Your task to perform on an android device: Open calendar and show me the fourth week of next month Image 0: 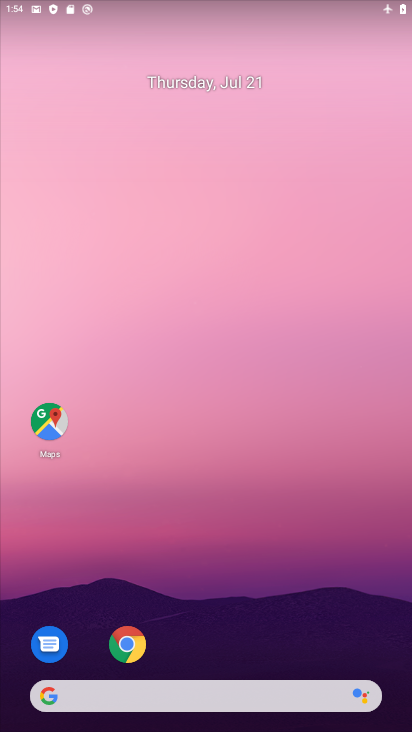
Step 0: drag from (269, 659) to (229, 195)
Your task to perform on an android device: Open calendar and show me the fourth week of next month Image 1: 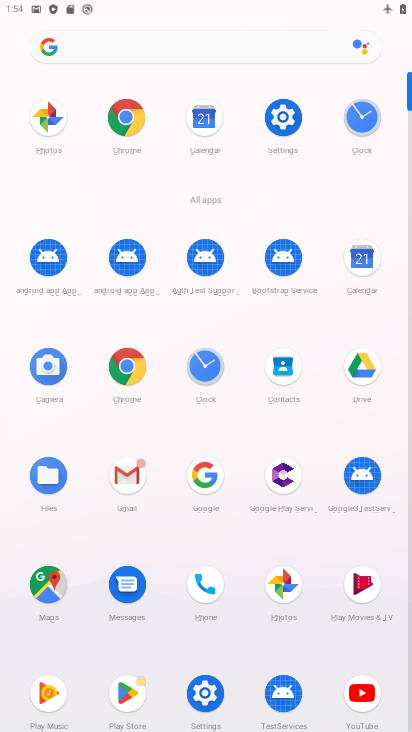
Step 1: click (365, 264)
Your task to perform on an android device: Open calendar and show me the fourth week of next month Image 2: 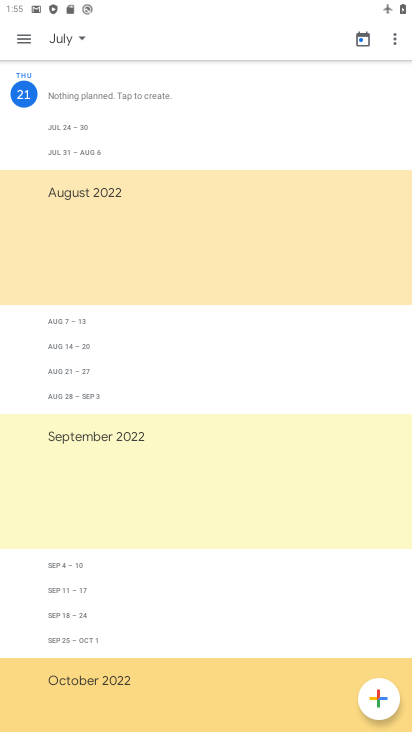
Step 2: click (19, 35)
Your task to perform on an android device: Open calendar and show me the fourth week of next month Image 3: 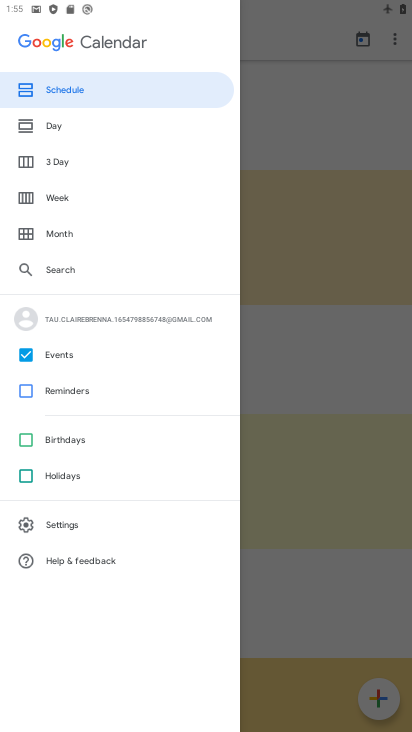
Step 3: click (54, 198)
Your task to perform on an android device: Open calendar and show me the fourth week of next month Image 4: 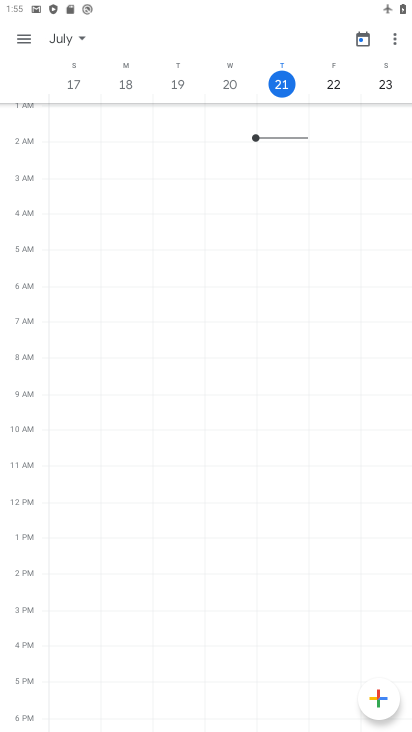
Step 4: click (76, 42)
Your task to perform on an android device: Open calendar and show me the fourth week of next month Image 5: 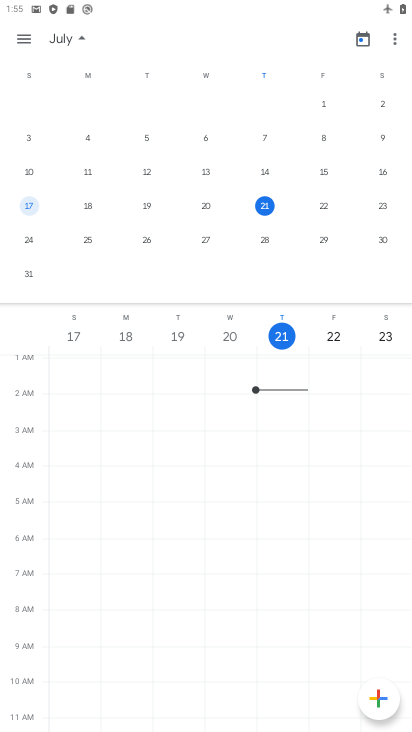
Step 5: drag from (377, 195) to (12, 168)
Your task to perform on an android device: Open calendar and show me the fourth week of next month Image 6: 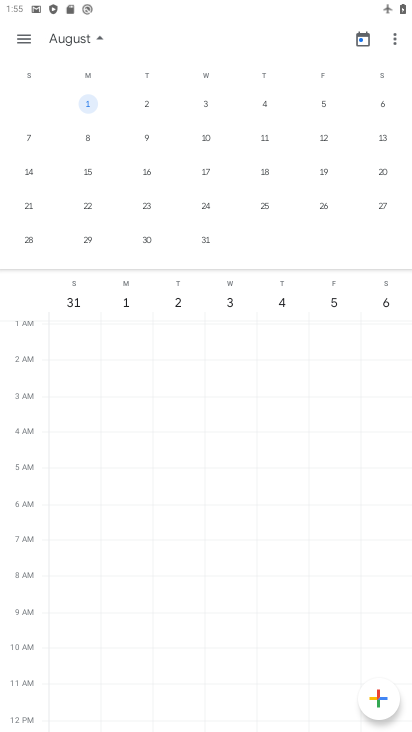
Step 6: click (210, 206)
Your task to perform on an android device: Open calendar and show me the fourth week of next month Image 7: 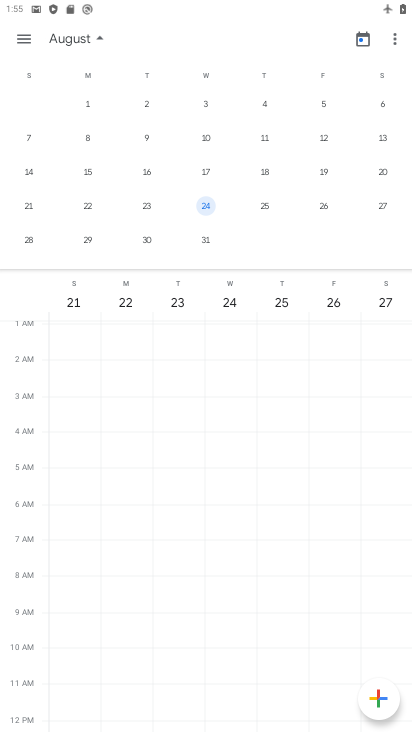
Step 7: task complete